Your task to perform on an android device: Go to eBay Image 0: 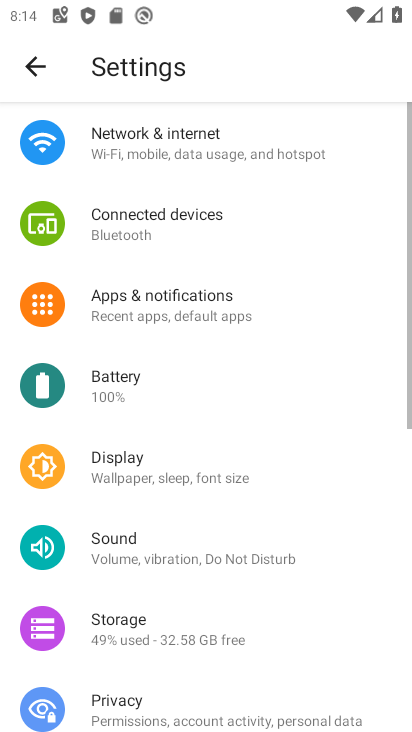
Step 0: press home button
Your task to perform on an android device: Go to eBay Image 1: 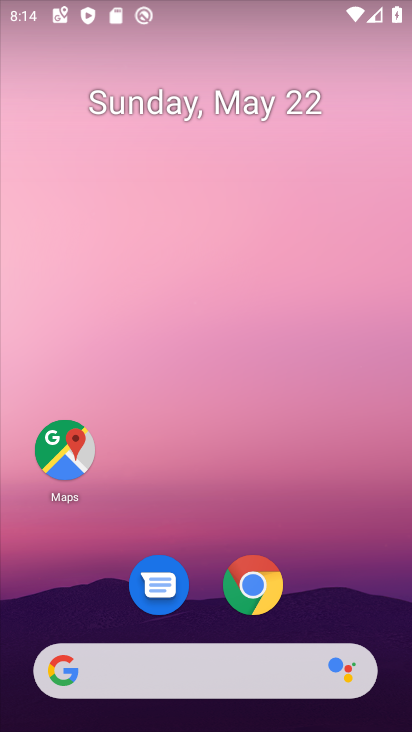
Step 1: click (243, 669)
Your task to perform on an android device: Go to eBay Image 2: 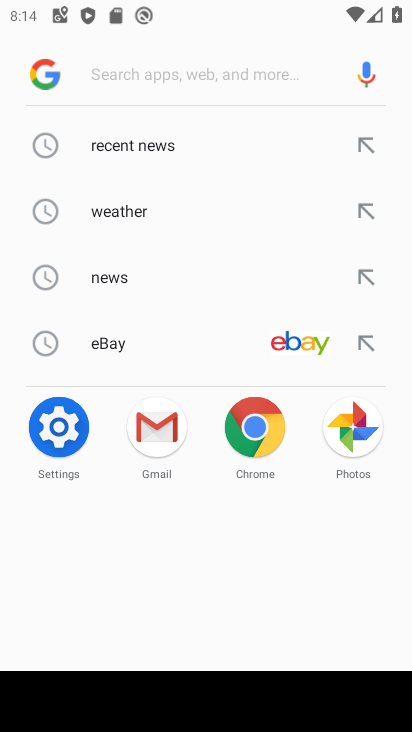
Step 2: click (109, 341)
Your task to perform on an android device: Go to eBay Image 3: 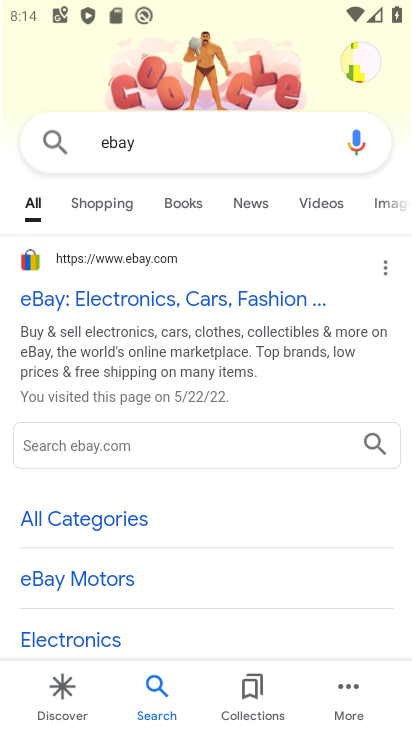
Step 3: click (37, 298)
Your task to perform on an android device: Go to eBay Image 4: 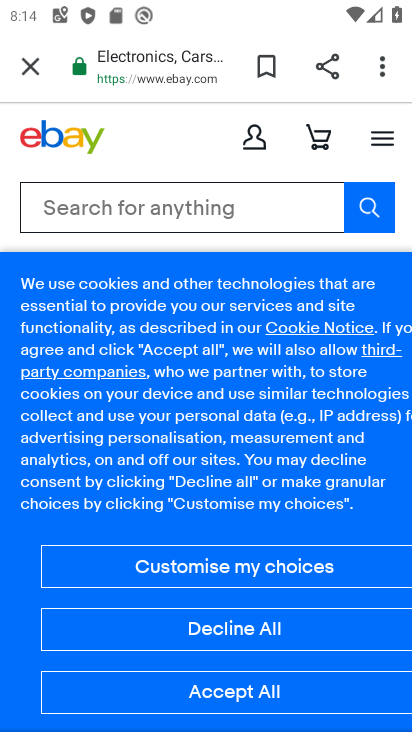
Step 4: task complete